Your task to perform on an android device: What is the news today? Image 0: 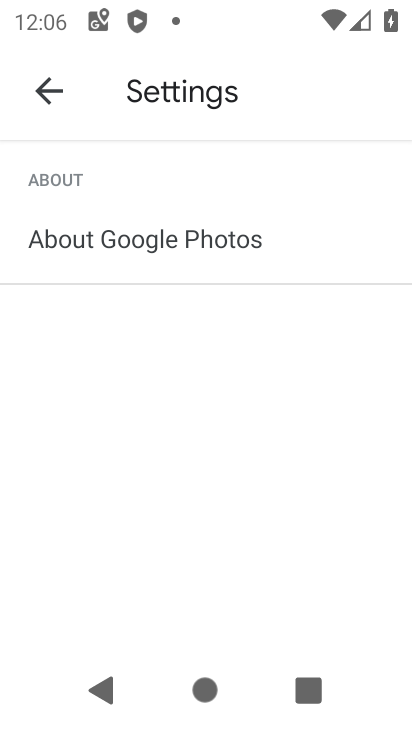
Step 0: press home button
Your task to perform on an android device: What is the news today? Image 1: 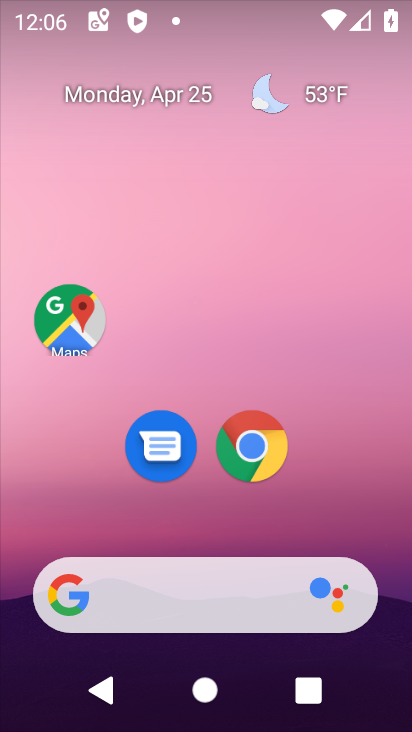
Step 1: click (215, 612)
Your task to perform on an android device: What is the news today? Image 2: 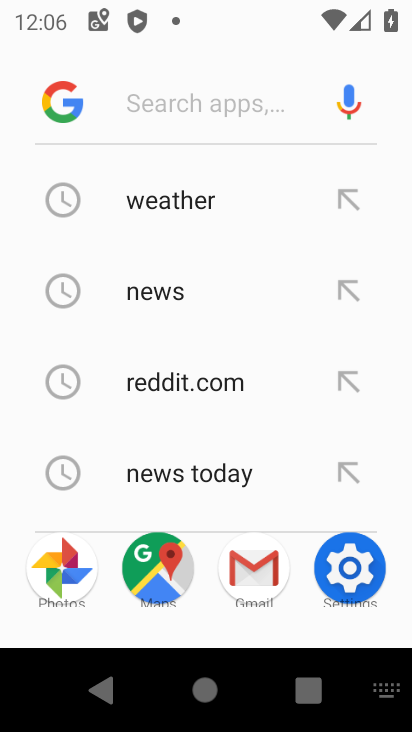
Step 2: type "news today"
Your task to perform on an android device: What is the news today? Image 3: 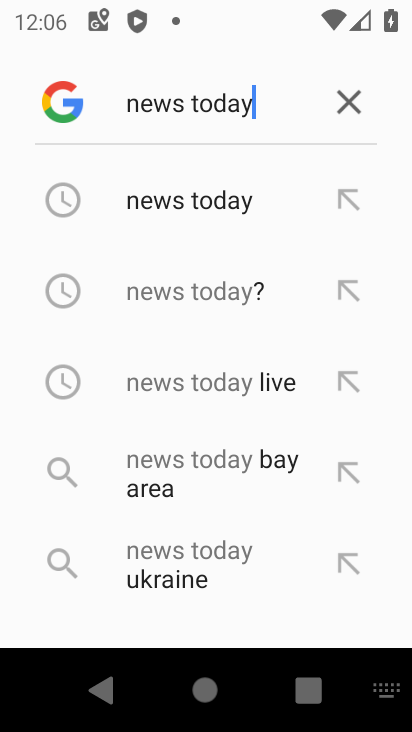
Step 3: click (188, 203)
Your task to perform on an android device: What is the news today? Image 4: 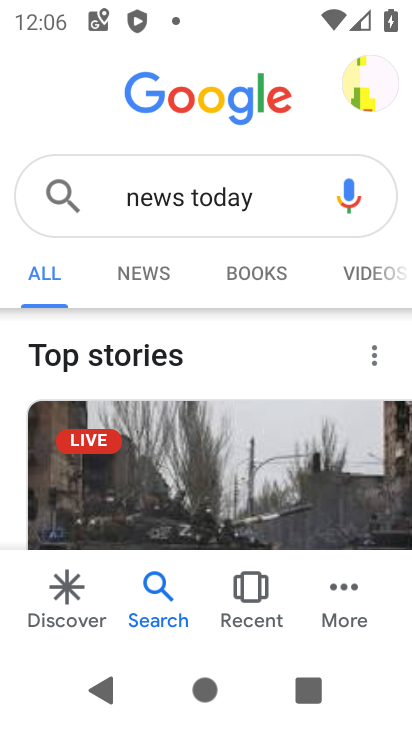
Step 4: task complete